Your task to perform on an android device: Open Maps and search for coffee Image 0: 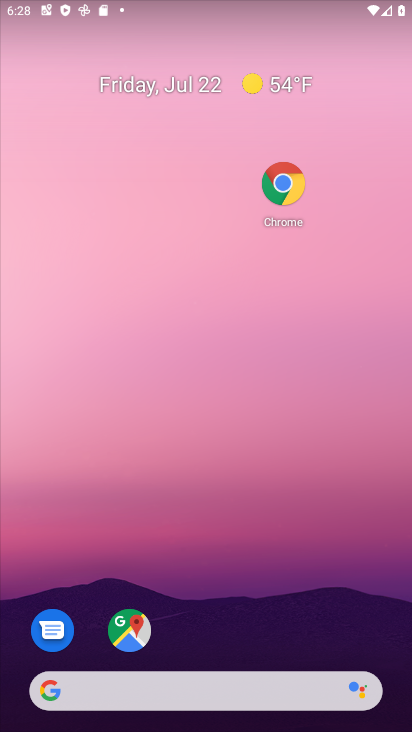
Step 0: click (133, 628)
Your task to perform on an android device: Open Maps and search for coffee Image 1: 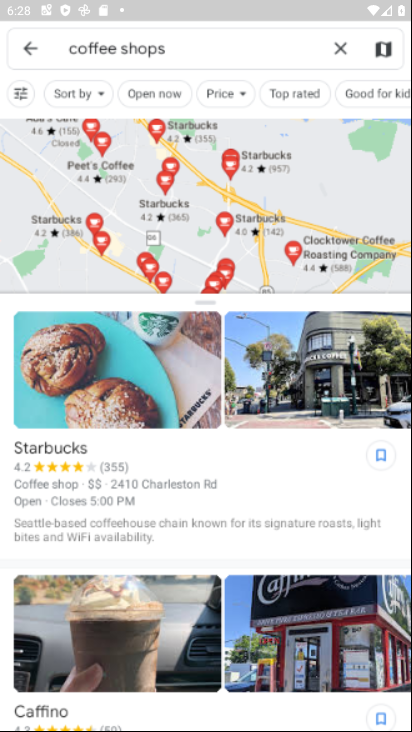
Step 1: click (126, 628)
Your task to perform on an android device: Open Maps and search for coffee Image 2: 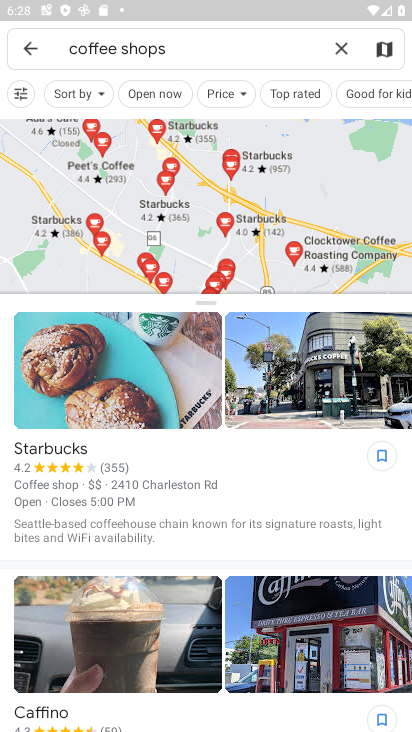
Step 2: click (30, 48)
Your task to perform on an android device: Open Maps and search for coffee Image 3: 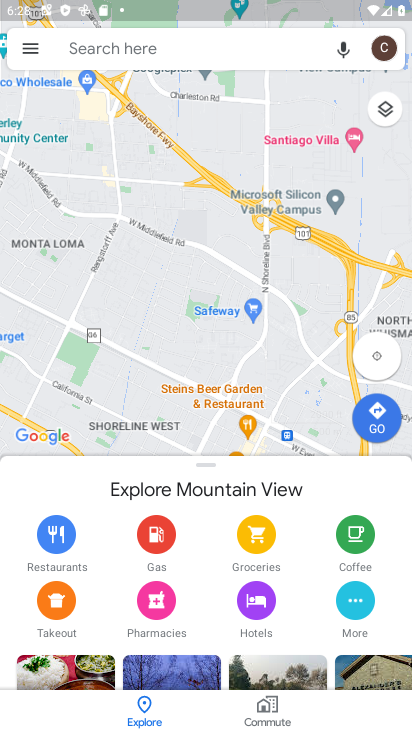
Step 3: click (269, 46)
Your task to perform on an android device: Open Maps and search for coffee Image 4: 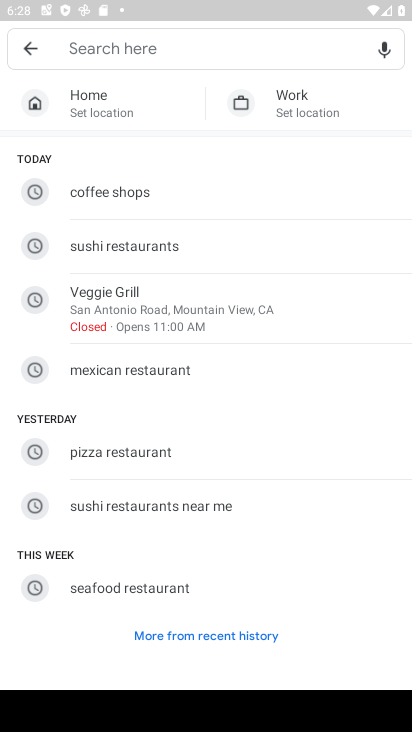
Step 4: type "cooffee"
Your task to perform on an android device: Open Maps and search for coffee Image 5: 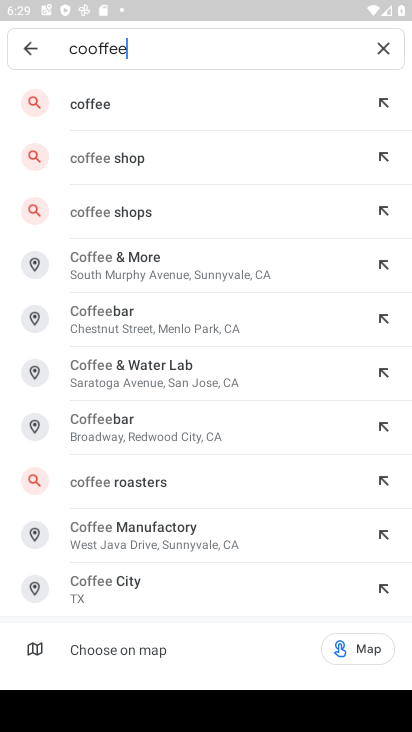
Step 5: click (101, 103)
Your task to perform on an android device: Open Maps and search for coffee Image 6: 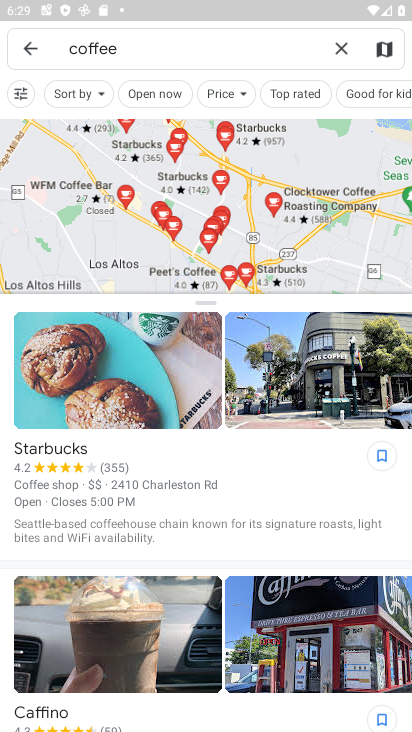
Step 6: task complete